Your task to perform on an android device: check android version Image 0: 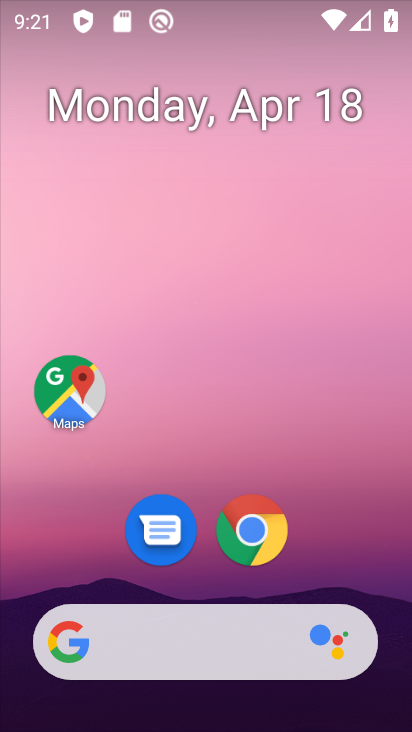
Step 0: drag from (375, 591) to (376, 62)
Your task to perform on an android device: check android version Image 1: 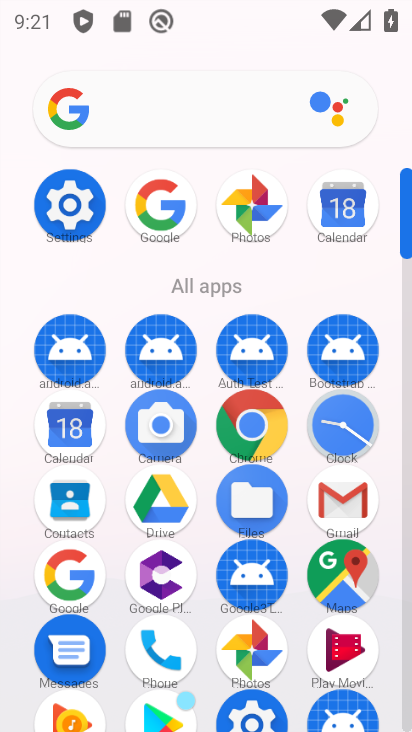
Step 1: click (61, 211)
Your task to perform on an android device: check android version Image 2: 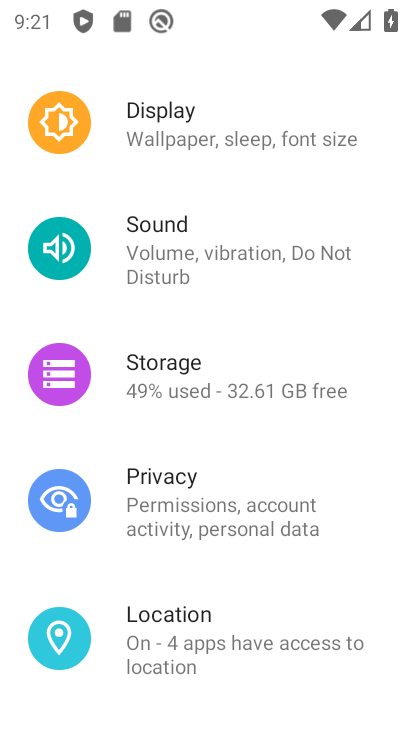
Step 2: drag from (351, 629) to (355, 161)
Your task to perform on an android device: check android version Image 3: 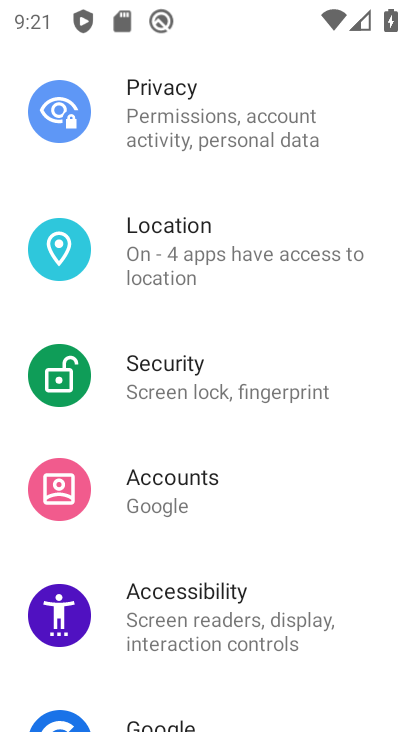
Step 3: drag from (363, 568) to (325, 168)
Your task to perform on an android device: check android version Image 4: 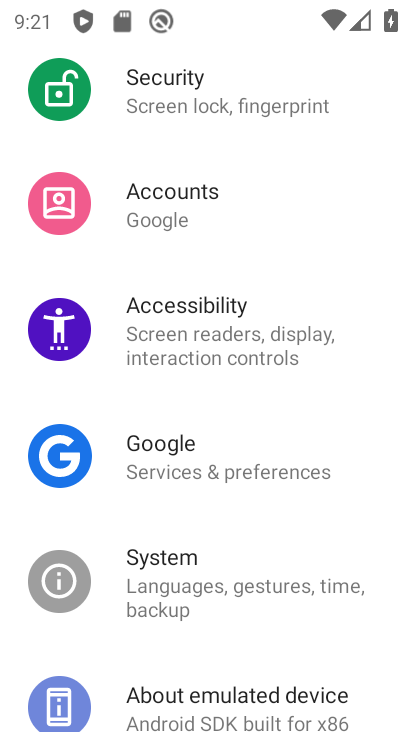
Step 4: drag from (366, 512) to (352, 233)
Your task to perform on an android device: check android version Image 5: 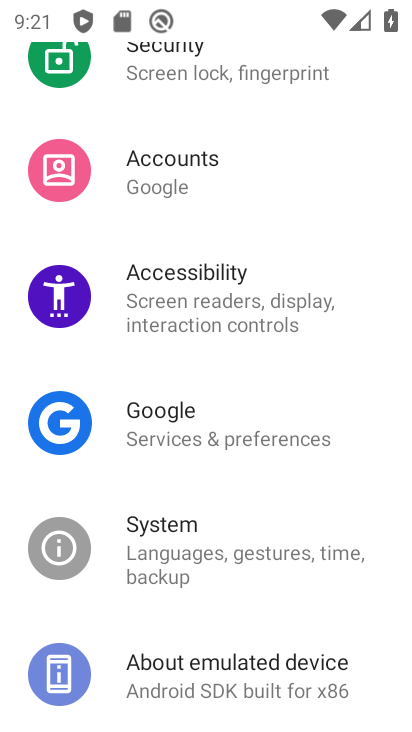
Step 5: click (205, 687)
Your task to perform on an android device: check android version Image 6: 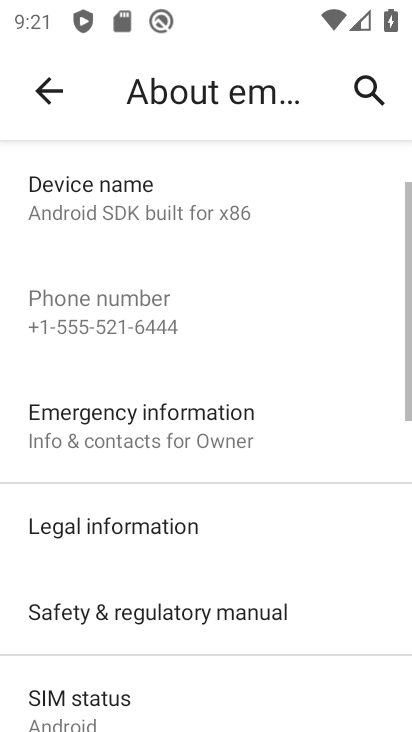
Step 6: drag from (329, 640) to (336, 243)
Your task to perform on an android device: check android version Image 7: 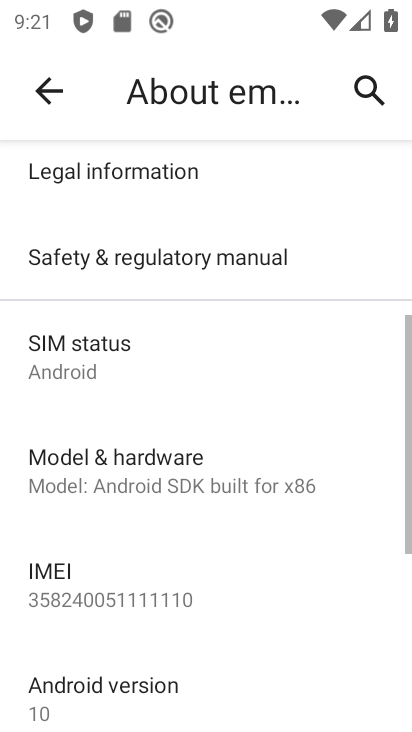
Step 7: drag from (319, 513) to (291, 188)
Your task to perform on an android device: check android version Image 8: 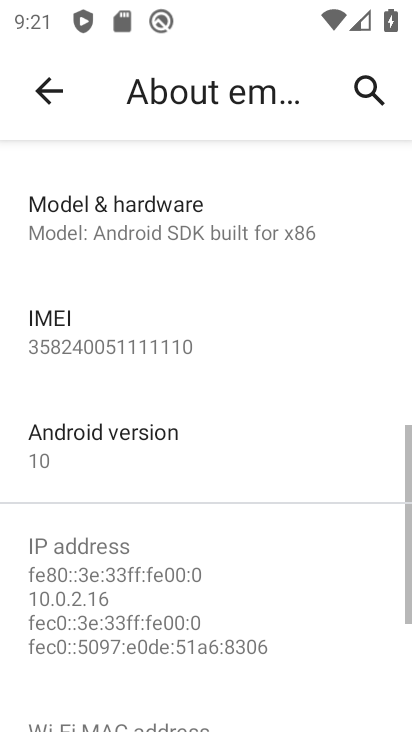
Step 8: click (47, 440)
Your task to perform on an android device: check android version Image 9: 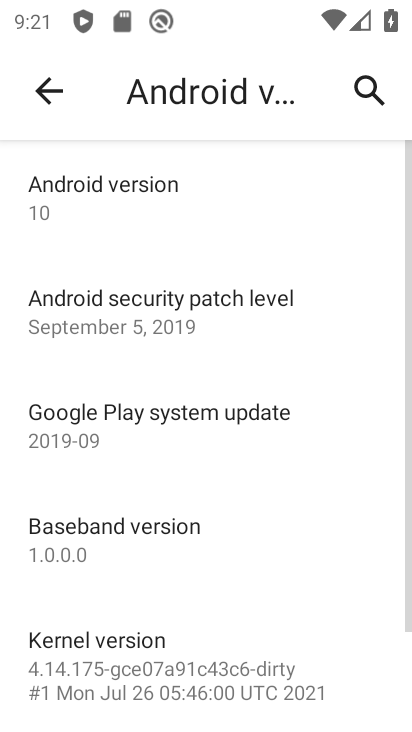
Step 9: task complete